Your task to perform on an android device: turn on the 12-hour format for clock Image 0: 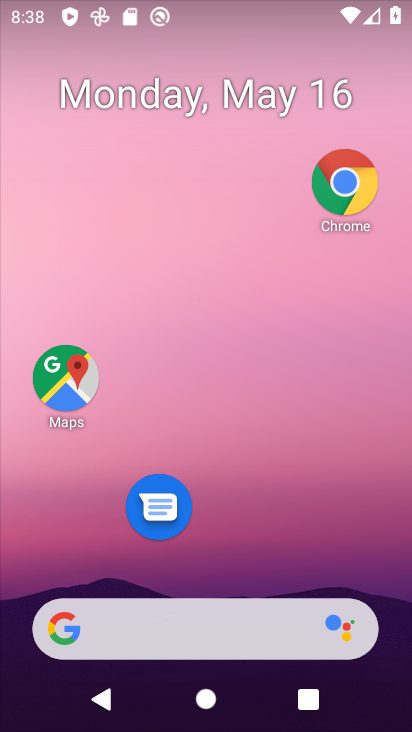
Step 0: drag from (299, 508) to (324, 107)
Your task to perform on an android device: turn on the 12-hour format for clock Image 1: 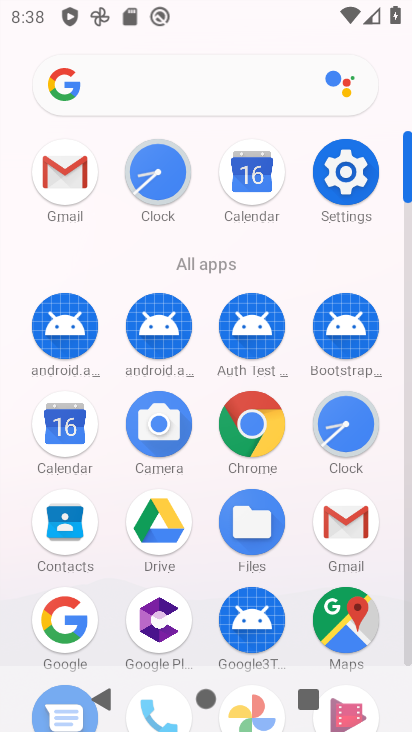
Step 1: click (346, 402)
Your task to perform on an android device: turn on the 12-hour format for clock Image 2: 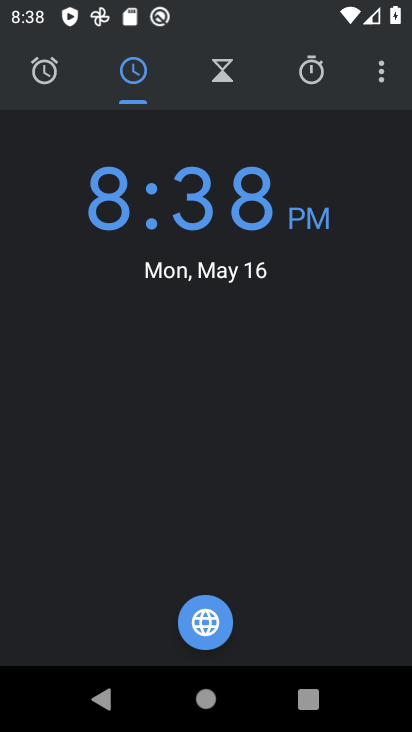
Step 2: click (382, 73)
Your task to perform on an android device: turn on the 12-hour format for clock Image 3: 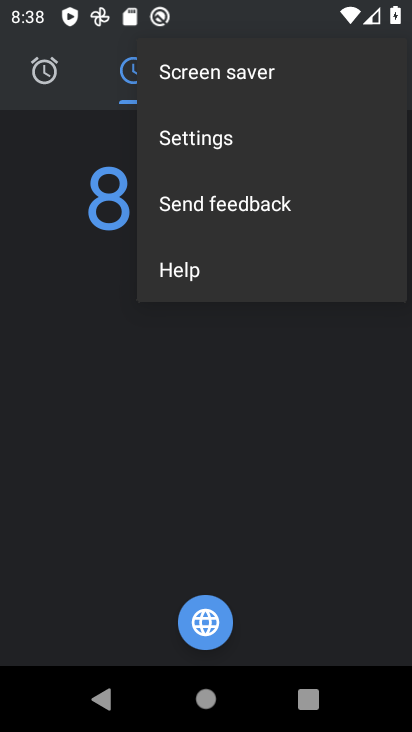
Step 3: click (214, 139)
Your task to perform on an android device: turn on the 12-hour format for clock Image 4: 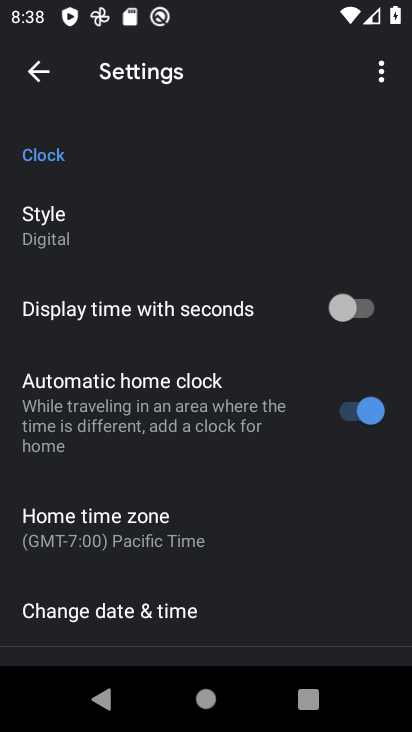
Step 4: click (183, 609)
Your task to perform on an android device: turn on the 12-hour format for clock Image 5: 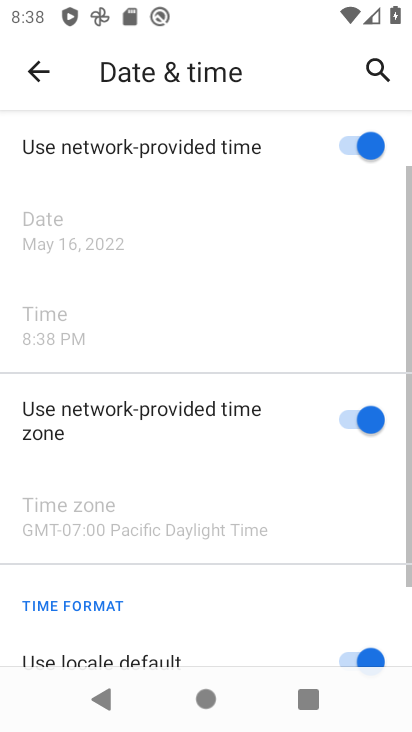
Step 5: task complete